Your task to perform on an android device: What's the weather? Image 0: 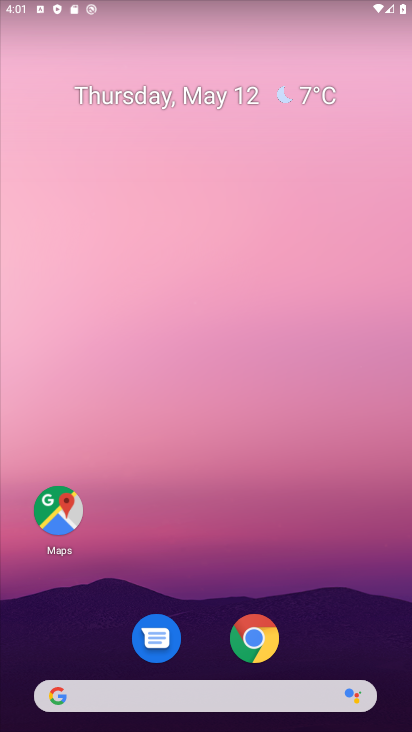
Step 0: drag from (314, 581) to (324, 725)
Your task to perform on an android device: What's the weather? Image 1: 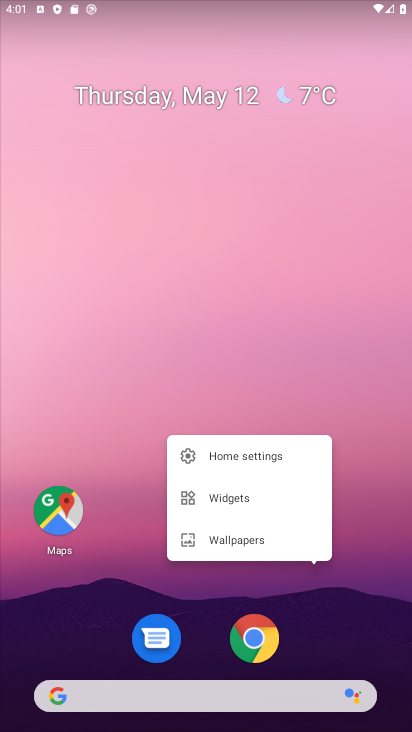
Step 1: click (305, 95)
Your task to perform on an android device: What's the weather? Image 2: 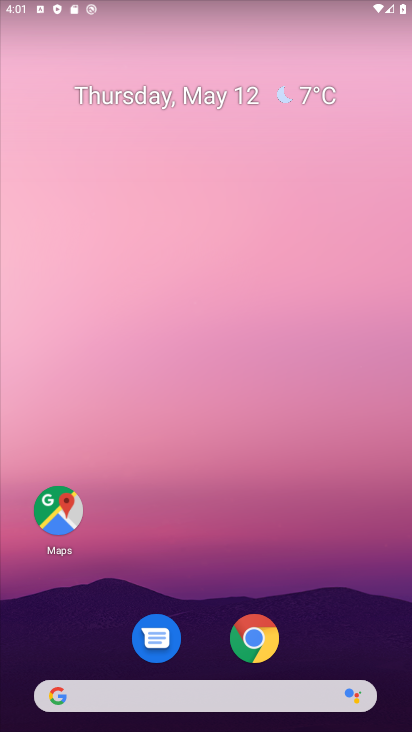
Step 2: click (315, 92)
Your task to perform on an android device: What's the weather? Image 3: 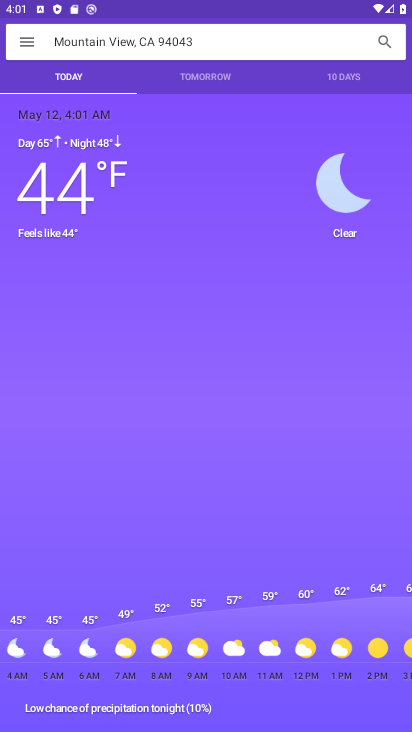
Step 3: task complete